Your task to perform on an android device: Open battery settings Image 0: 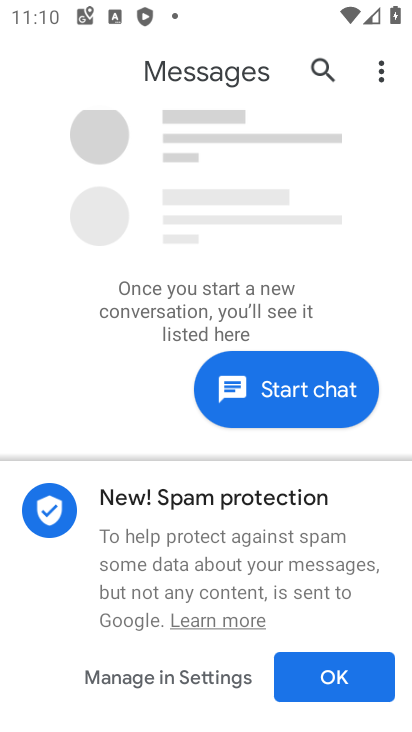
Step 0: press home button
Your task to perform on an android device: Open battery settings Image 1: 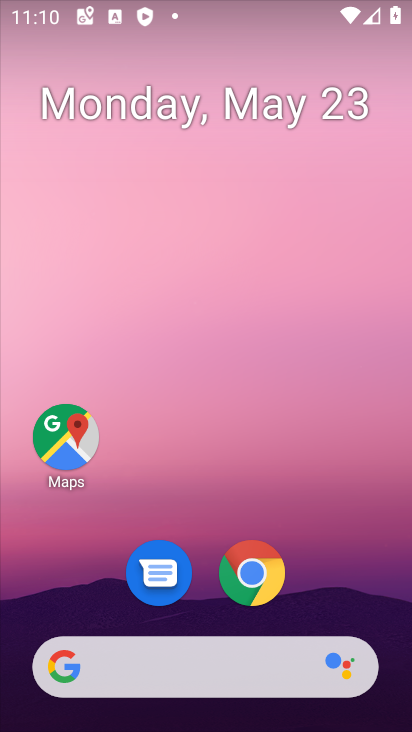
Step 1: drag from (210, 633) to (209, 293)
Your task to perform on an android device: Open battery settings Image 2: 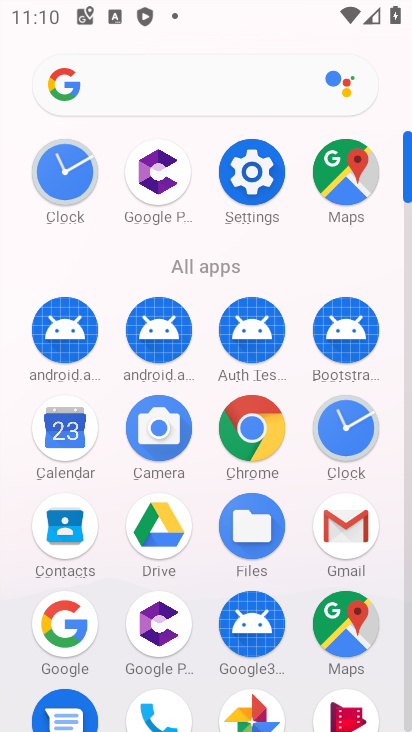
Step 2: click (249, 173)
Your task to perform on an android device: Open battery settings Image 3: 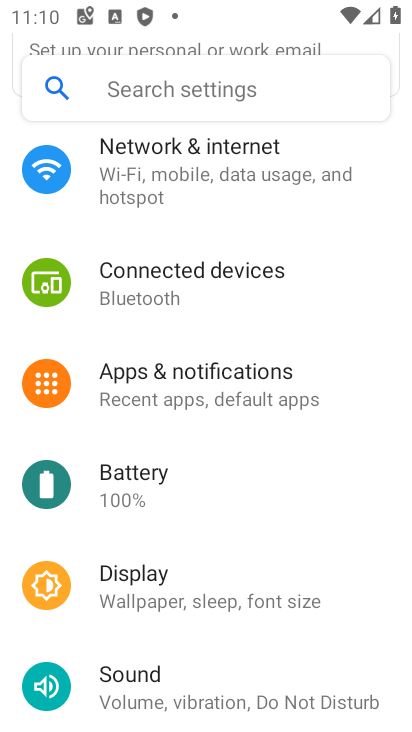
Step 3: click (133, 479)
Your task to perform on an android device: Open battery settings Image 4: 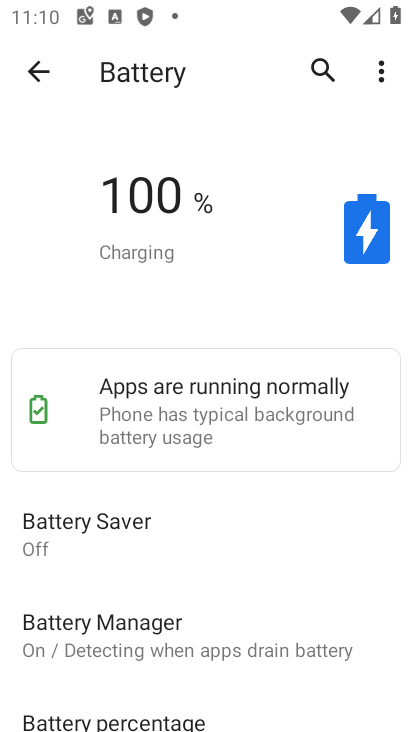
Step 4: task complete